Your task to perform on an android device: Open calendar and show me the fourth week of next month Image 0: 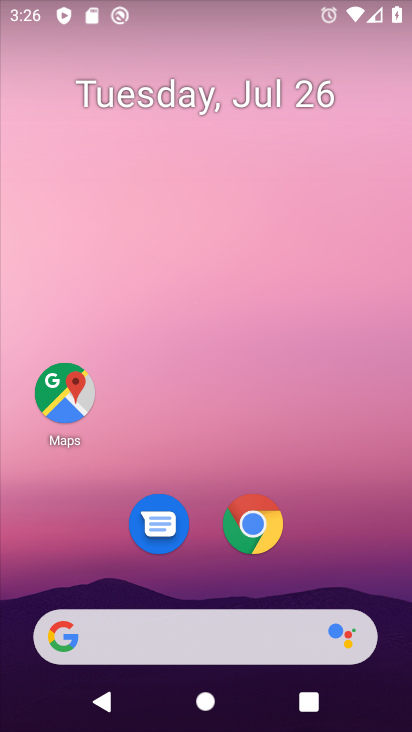
Step 0: drag from (332, 523) to (364, 49)
Your task to perform on an android device: Open calendar and show me the fourth week of next month Image 1: 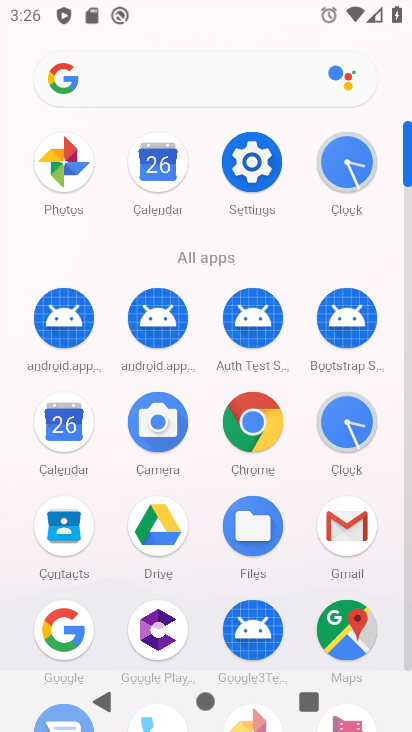
Step 1: click (156, 157)
Your task to perform on an android device: Open calendar and show me the fourth week of next month Image 2: 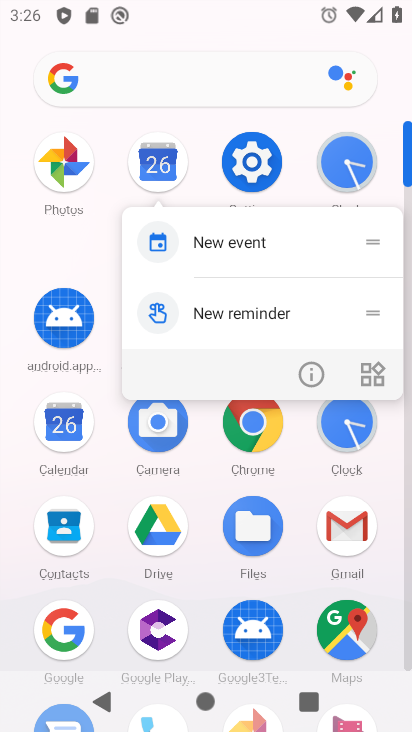
Step 2: click (156, 160)
Your task to perform on an android device: Open calendar and show me the fourth week of next month Image 3: 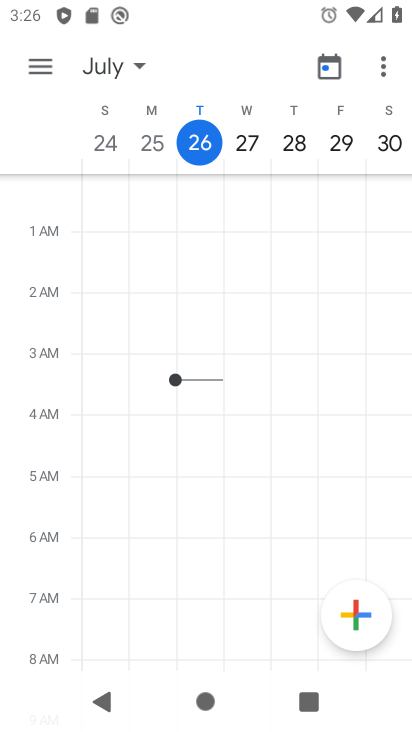
Step 3: task complete